Your task to perform on an android device: Open Google Chrome and open the bookmarks view Image 0: 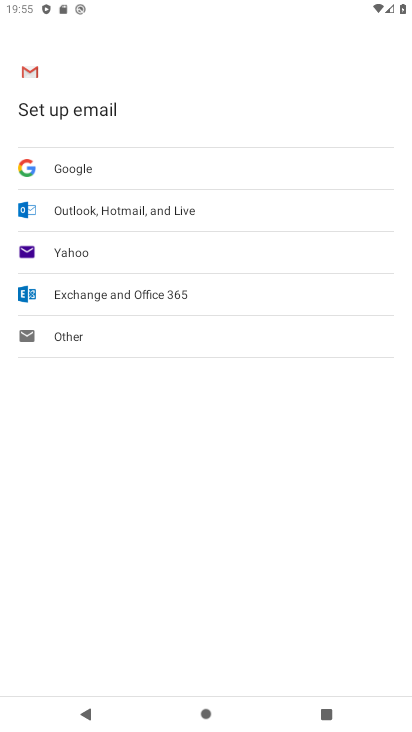
Step 0: press home button
Your task to perform on an android device: Open Google Chrome and open the bookmarks view Image 1: 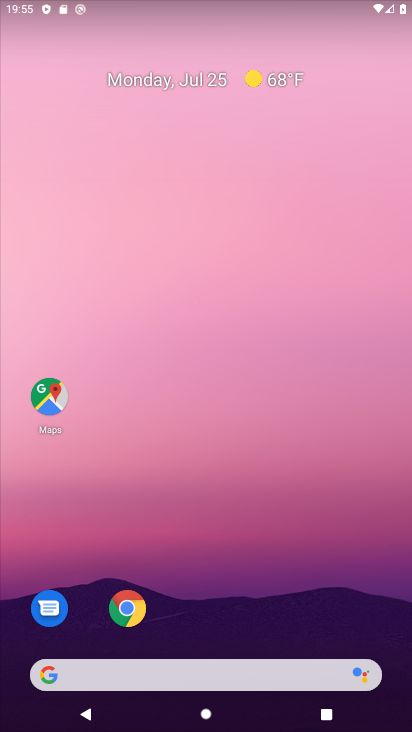
Step 1: click (132, 613)
Your task to perform on an android device: Open Google Chrome and open the bookmarks view Image 2: 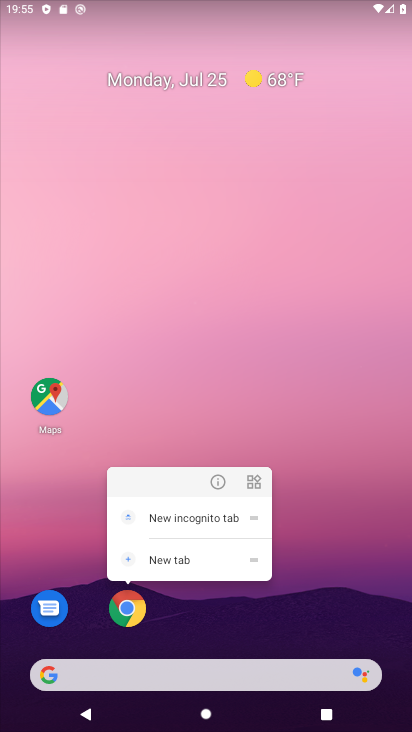
Step 2: click (132, 613)
Your task to perform on an android device: Open Google Chrome and open the bookmarks view Image 3: 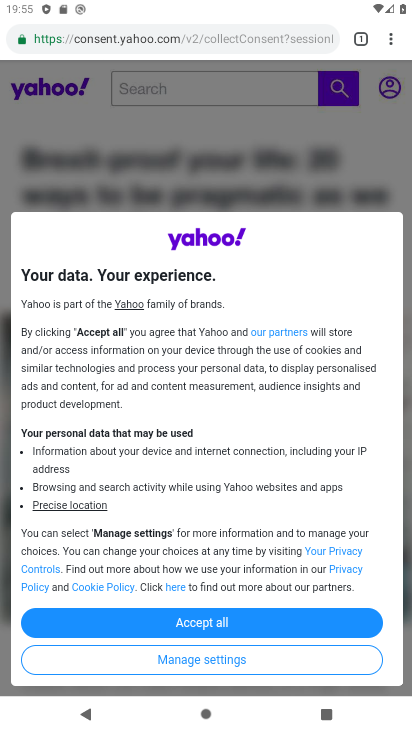
Step 3: drag from (395, 39) to (266, 164)
Your task to perform on an android device: Open Google Chrome and open the bookmarks view Image 4: 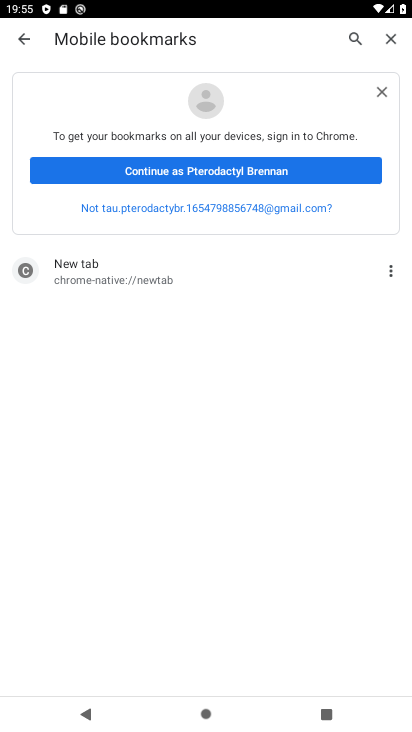
Step 4: click (264, 164)
Your task to perform on an android device: Open Google Chrome and open the bookmarks view Image 5: 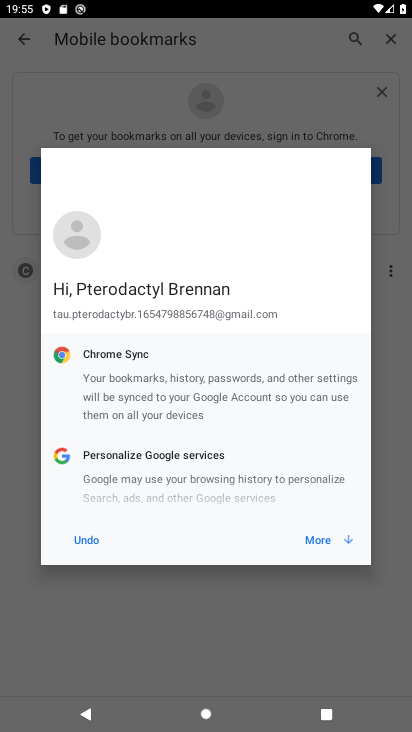
Step 5: click (319, 550)
Your task to perform on an android device: Open Google Chrome and open the bookmarks view Image 6: 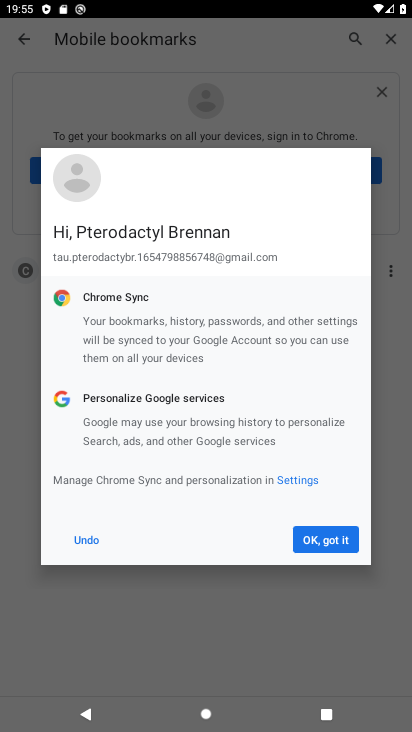
Step 6: click (319, 550)
Your task to perform on an android device: Open Google Chrome and open the bookmarks view Image 7: 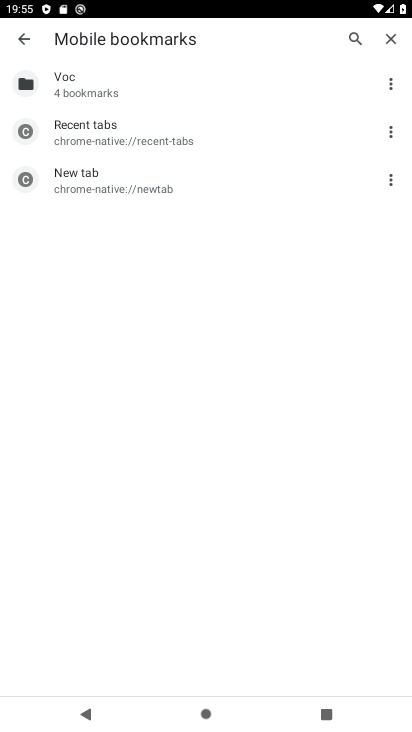
Step 7: task complete